Your task to perform on an android device: View the shopping cart on ebay. Search for "logitech g pro" on ebay, select the first entry, add it to the cart, then select checkout. Image 0: 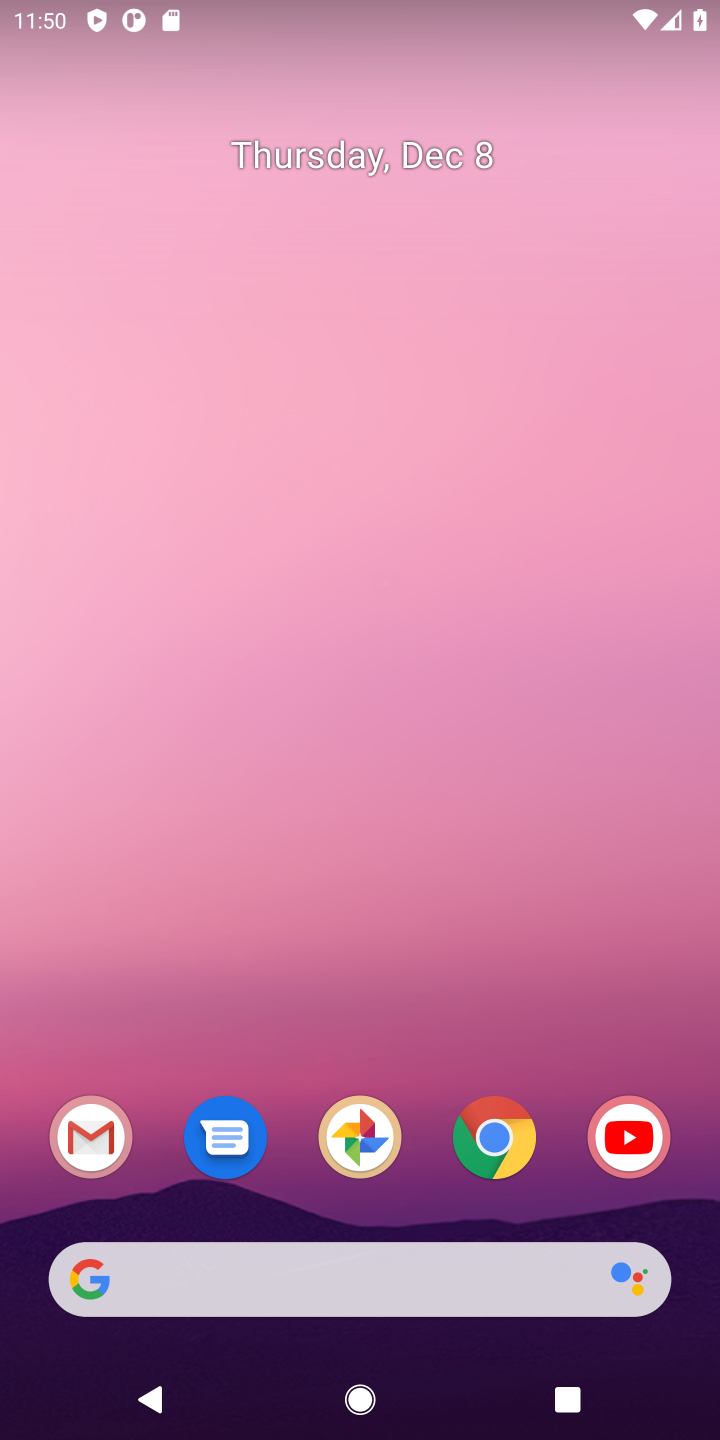
Step 0: click (491, 1142)
Your task to perform on an android device: View the shopping cart on ebay. Search for "logitech g pro" on ebay, select the first entry, add it to the cart, then select checkout. Image 1: 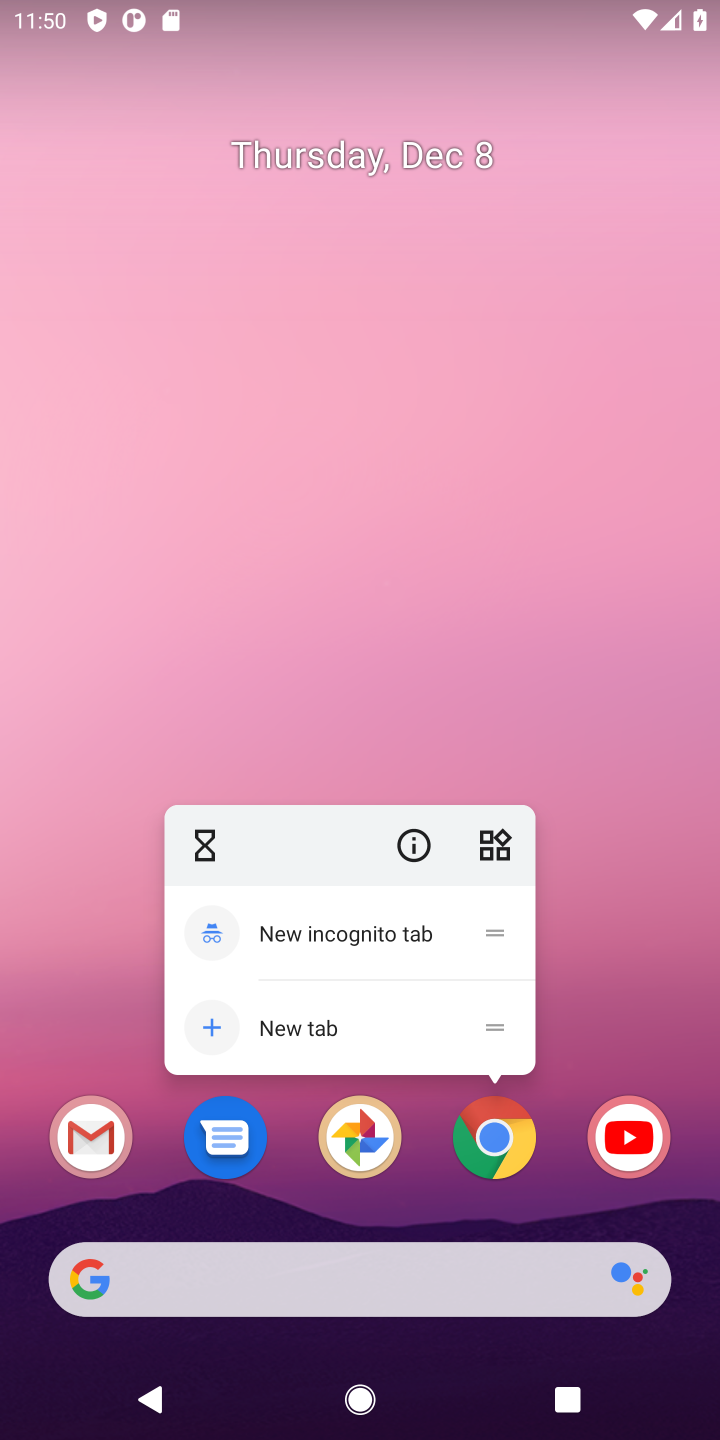
Step 1: click (502, 1137)
Your task to perform on an android device: View the shopping cart on ebay. Search for "logitech g pro" on ebay, select the first entry, add it to the cart, then select checkout. Image 2: 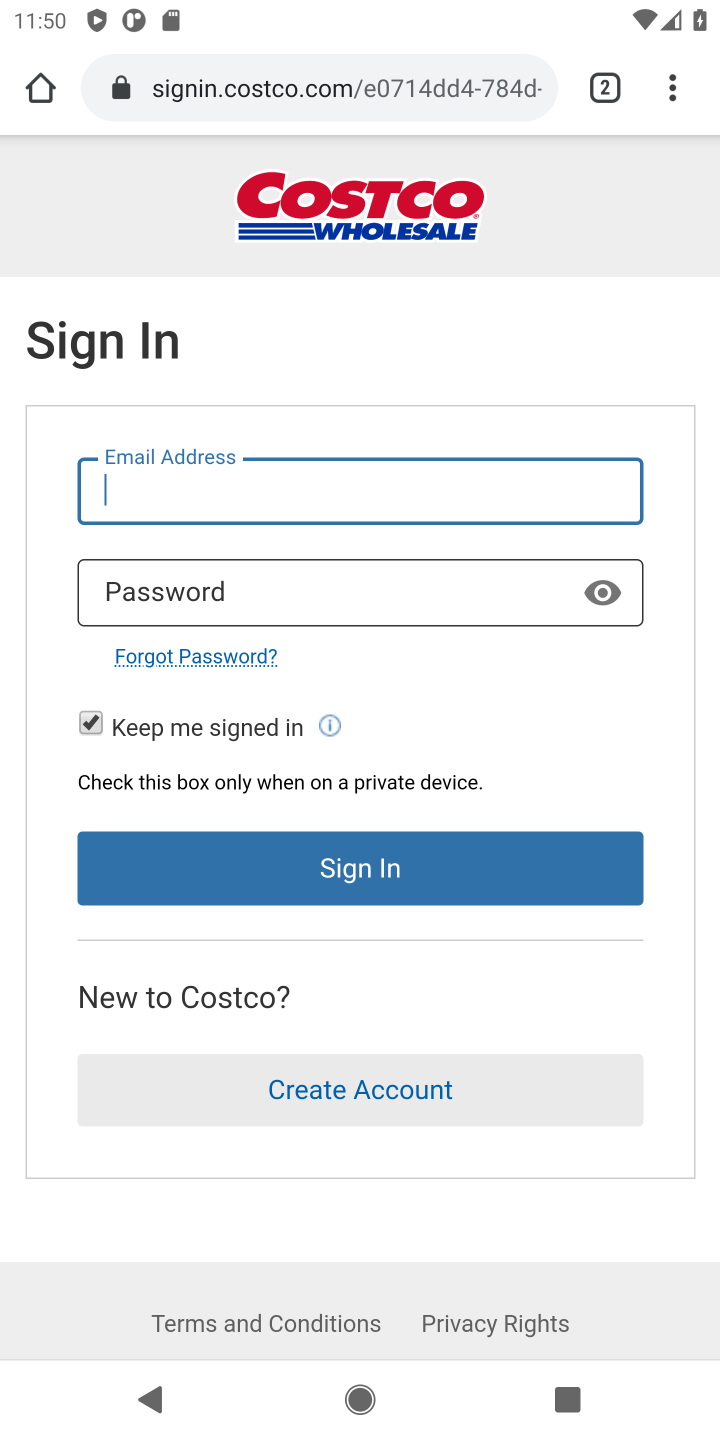
Step 2: click (368, 87)
Your task to perform on an android device: View the shopping cart on ebay. Search for "logitech g pro" on ebay, select the first entry, add it to the cart, then select checkout. Image 3: 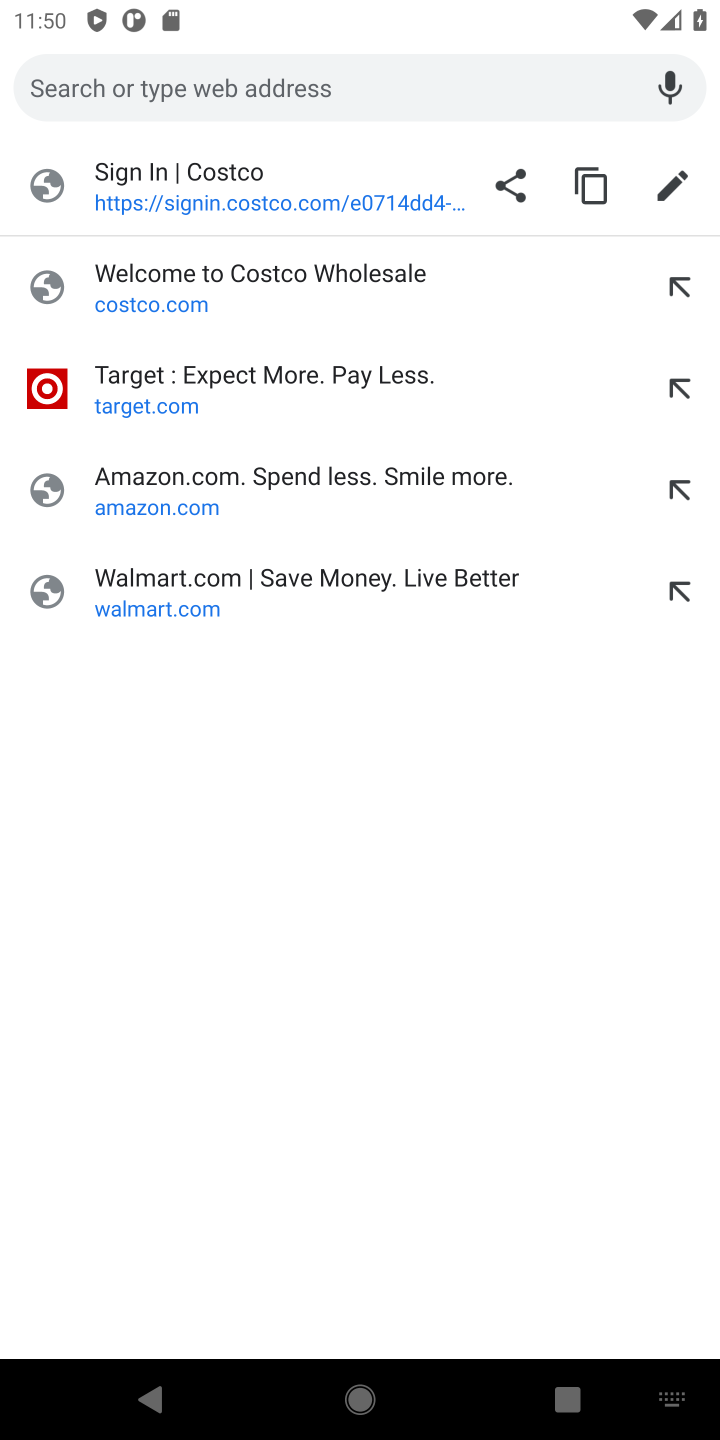
Step 3: type "EBAY"
Your task to perform on an android device: View the shopping cart on ebay. Search for "logitech g pro" on ebay, select the first entry, add it to the cart, then select checkout. Image 4: 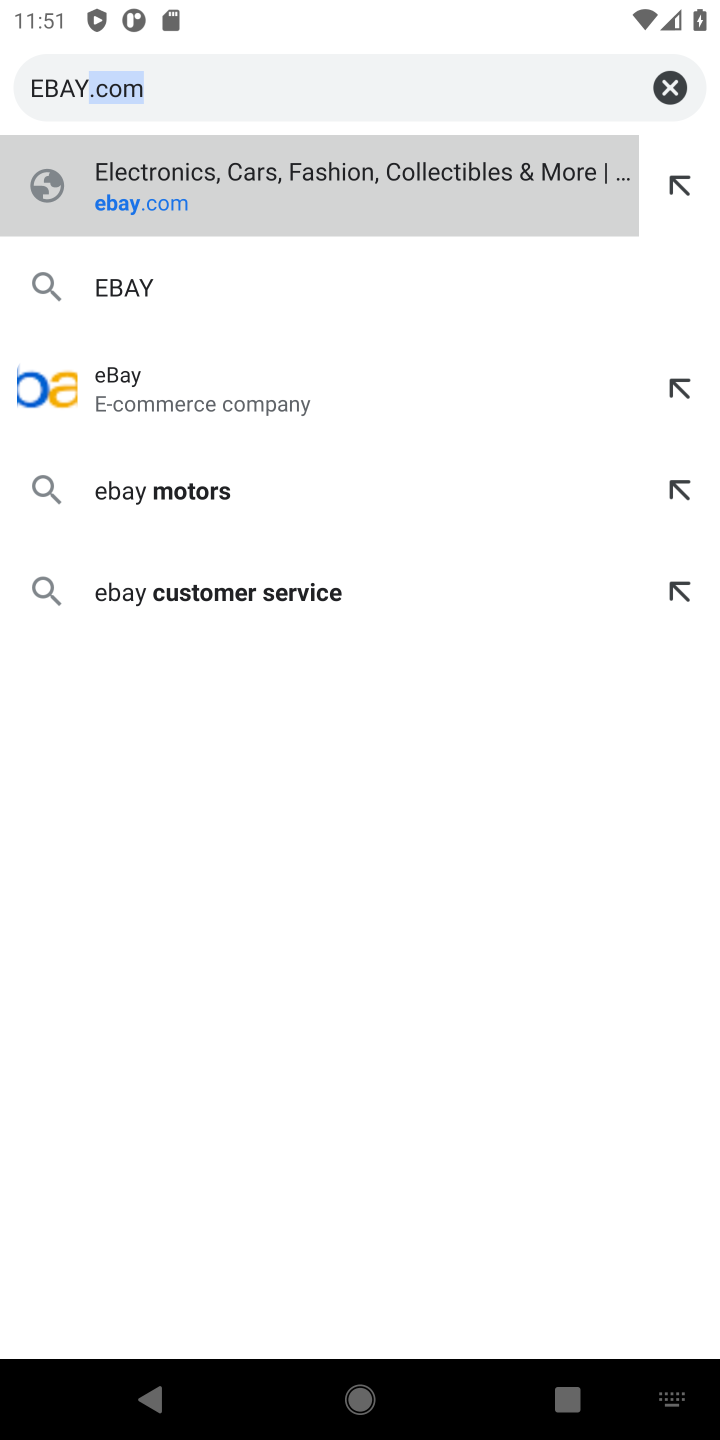
Step 4: click (173, 208)
Your task to perform on an android device: View the shopping cart on ebay. Search for "logitech g pro" on ebay, select the first entry, add it to the cart, then select checkout. Image 5: 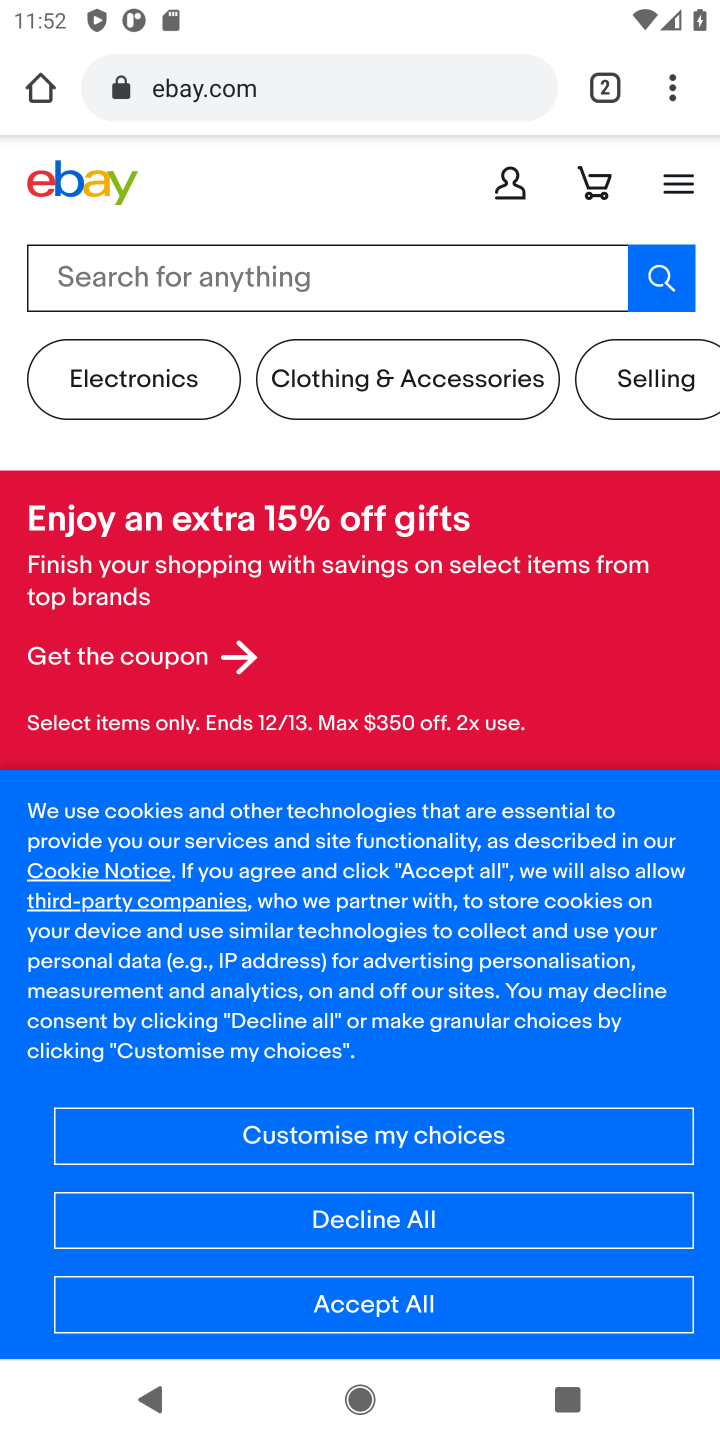
Step 5: click (452, 1297)
Your task to perform on an android device: View the shopping cart on ebay. Search for "logitech g pro" on ebay, select the first entry, add it to the cart, then select checkout. Image 6: 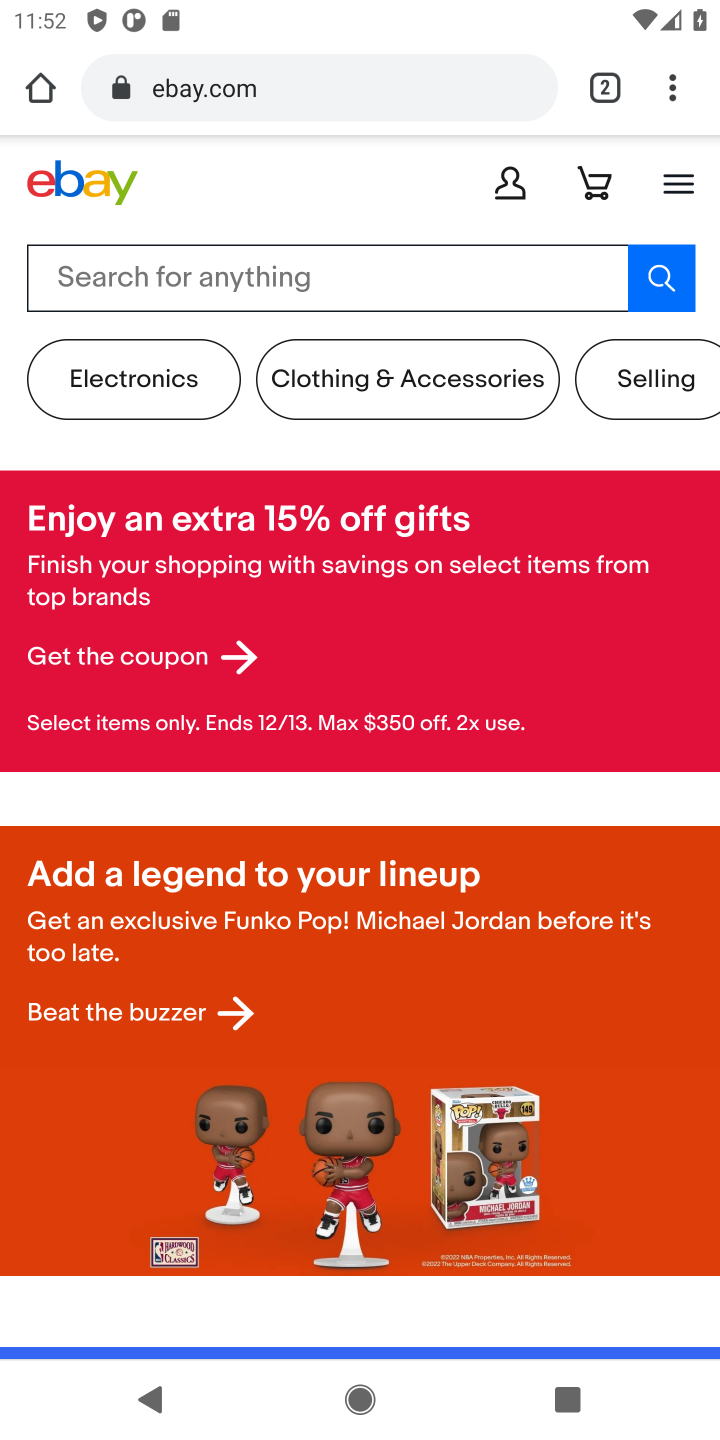
Step 6: click (341, 273)
Your task to perform on an android device: View the shopping cart on ebay. Search for "logitech g pro" on ebay, select the first entry, add it to the cart, then select checkout. Image 7: 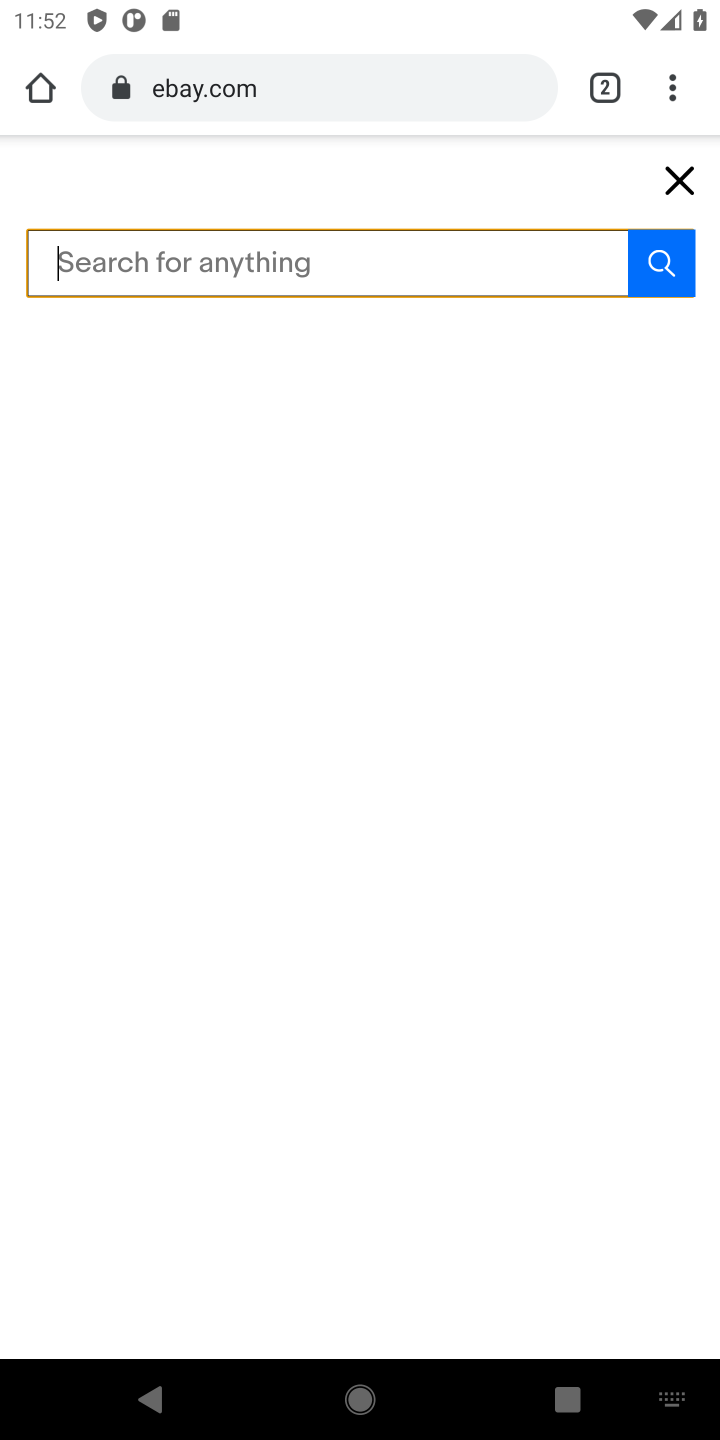
Step 7: type "LOGITECH G PRO"
Your task to perform on an android device: View the shopping cart on ebay. Search for "logitech g pro" on ebay, select the first entry, add it to the cart, then select checkout. Image 8: 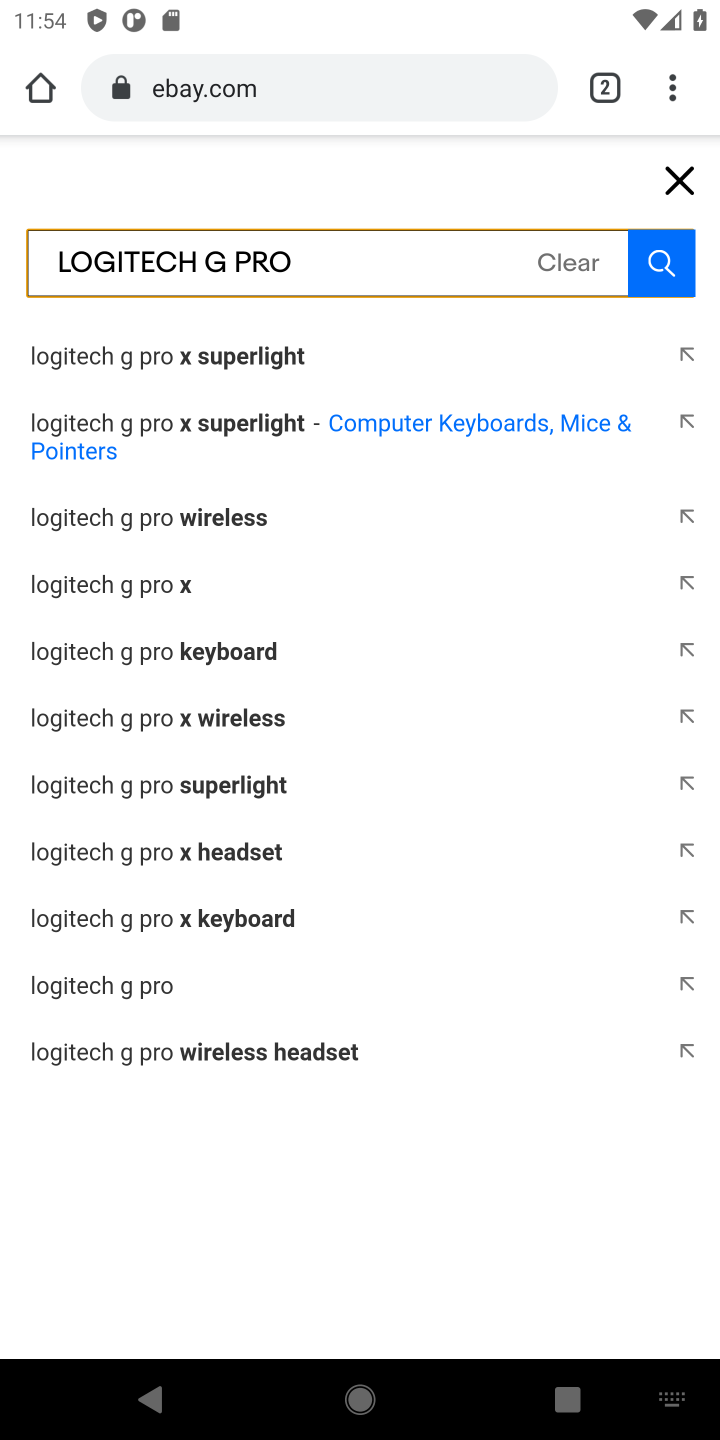
Step 8: click (250, 357)
Your task to perform on an android device: View the shopping cart on ebay. Search for "logitech g pro" on ebay, select the first entry, add it to the cart, then select checkout. Image 9: 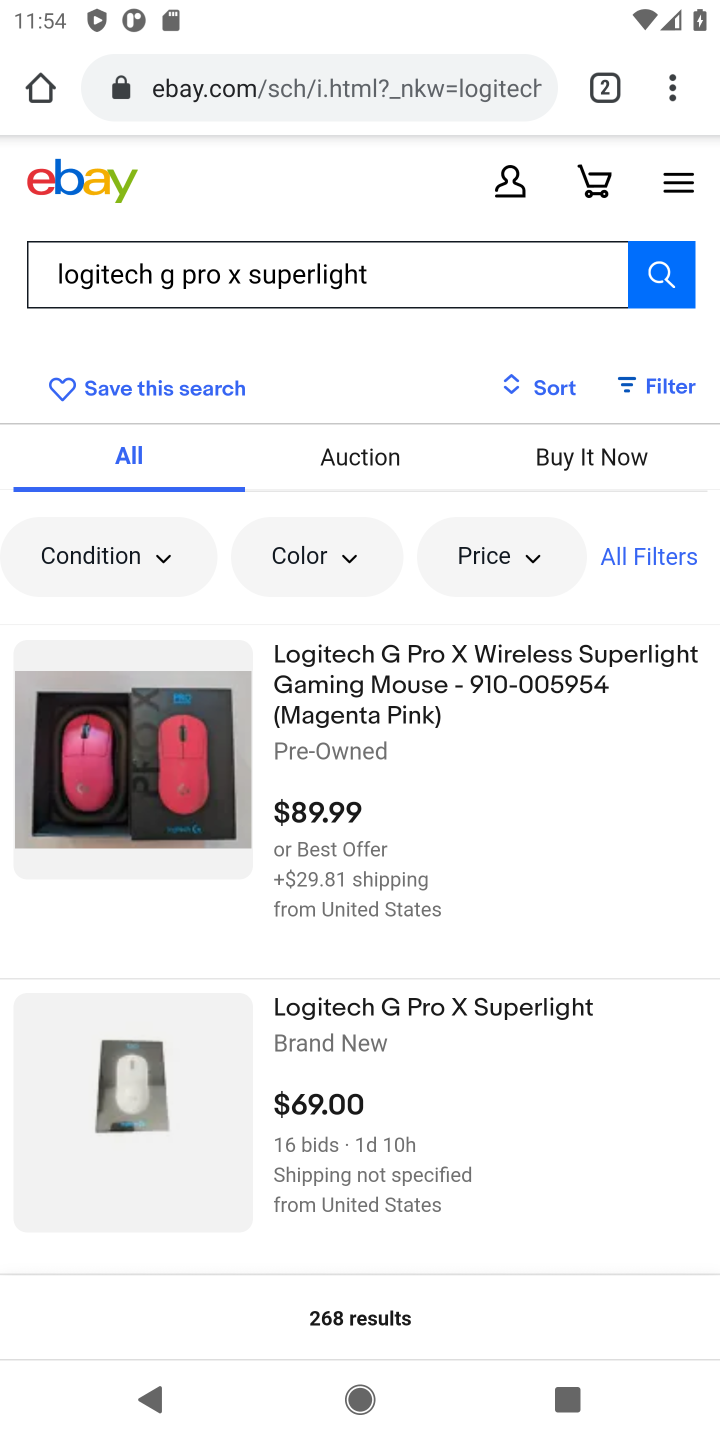
Step 9: click (521, 760)
Your task to perform on an android device: View the shopping cart on ebay. Search for "logitech g pro" on ebay, select the first entry, add it to the cart, then select checkout. Image 10: 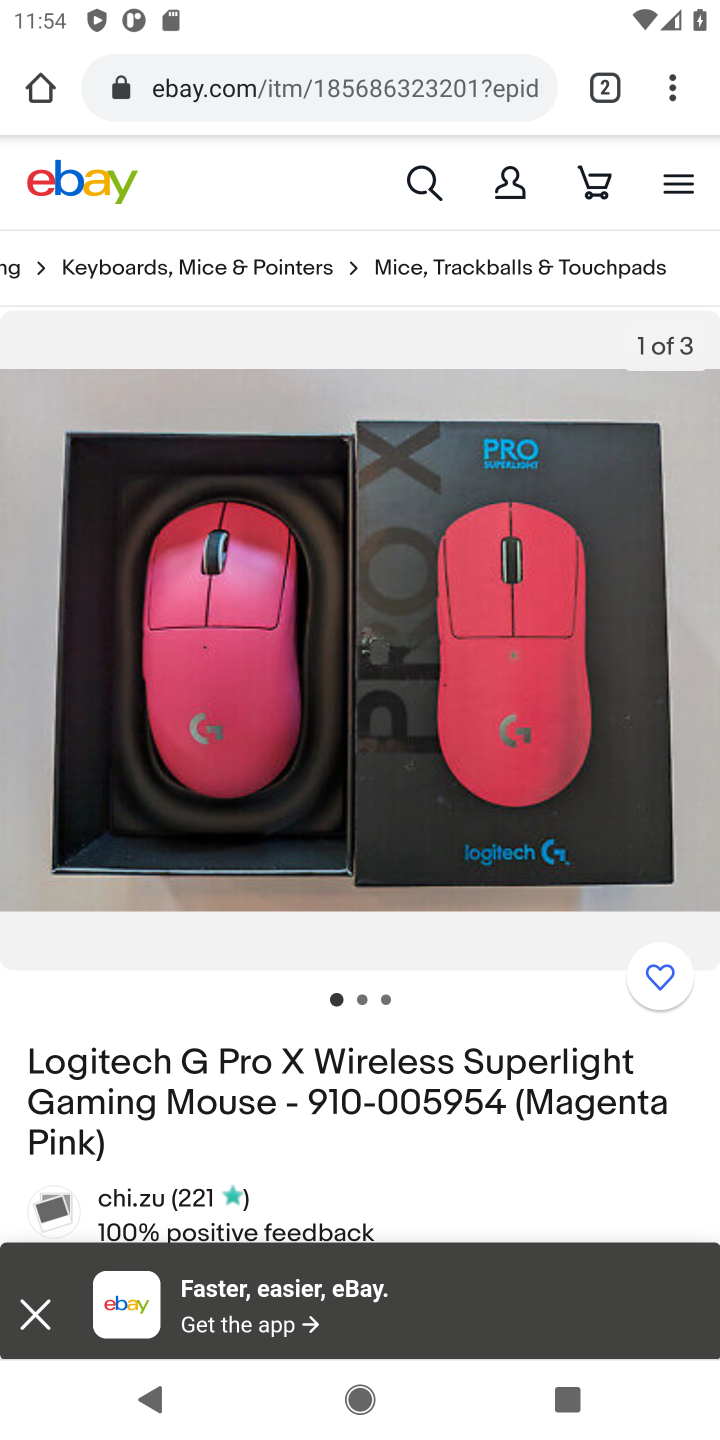
Step 10: drag from (444, 1152) to (430, 157)
Your task to perform on an android device: View the shopping cart on ebay. Search for "logitech g pro" on ebay, select the first entry, add it to the cart, then select checkout. Image 11: 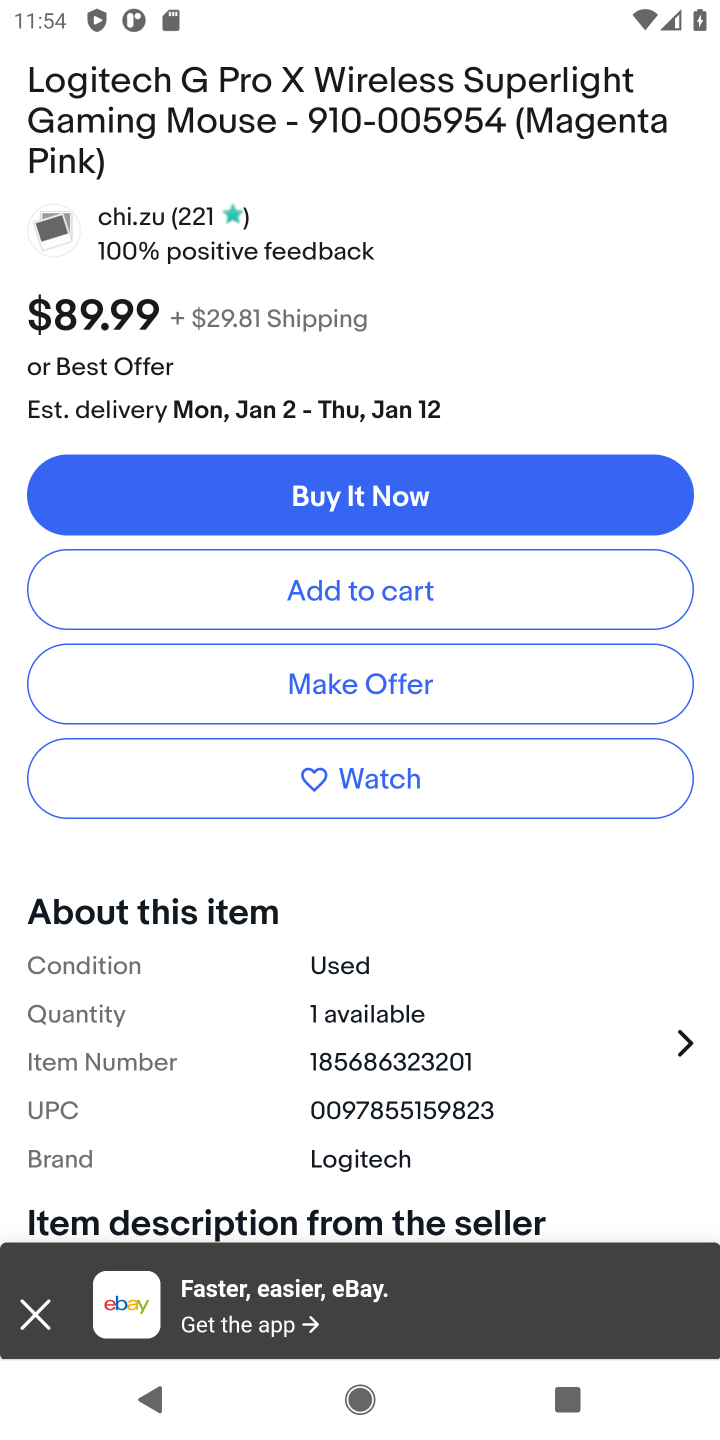
Step 11: click (420, 577)
Your task to perform on an android device: View the shopping cart on ebay. Search for "logitech g pro" on ebay, select the first entry, add it to the cart, then select checkout. Image 12: 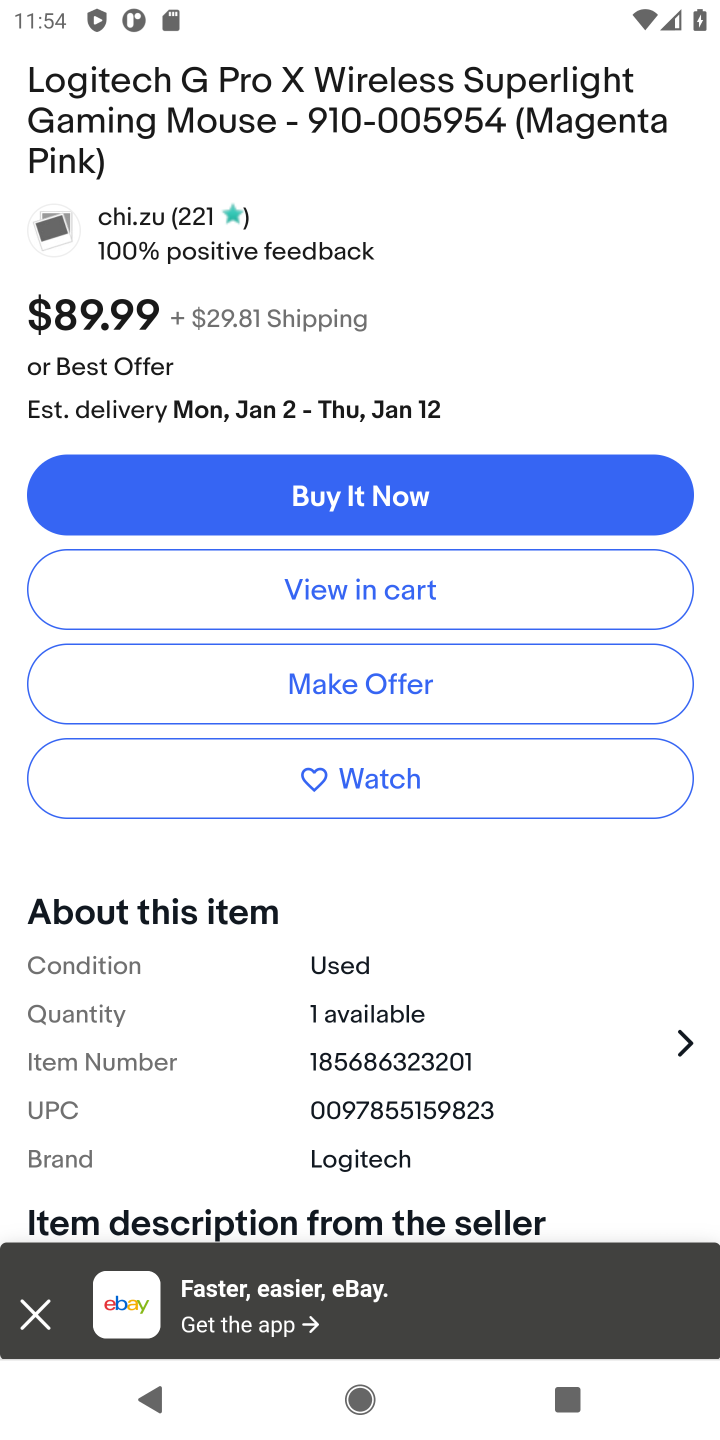
Step 12: click (420, 577)
Your task to perform on an android device: View the shopping cart on ebay. Search for "logitech g pro" on ebay, select the first entry, add it to the cart, then select checkout. Image 13: 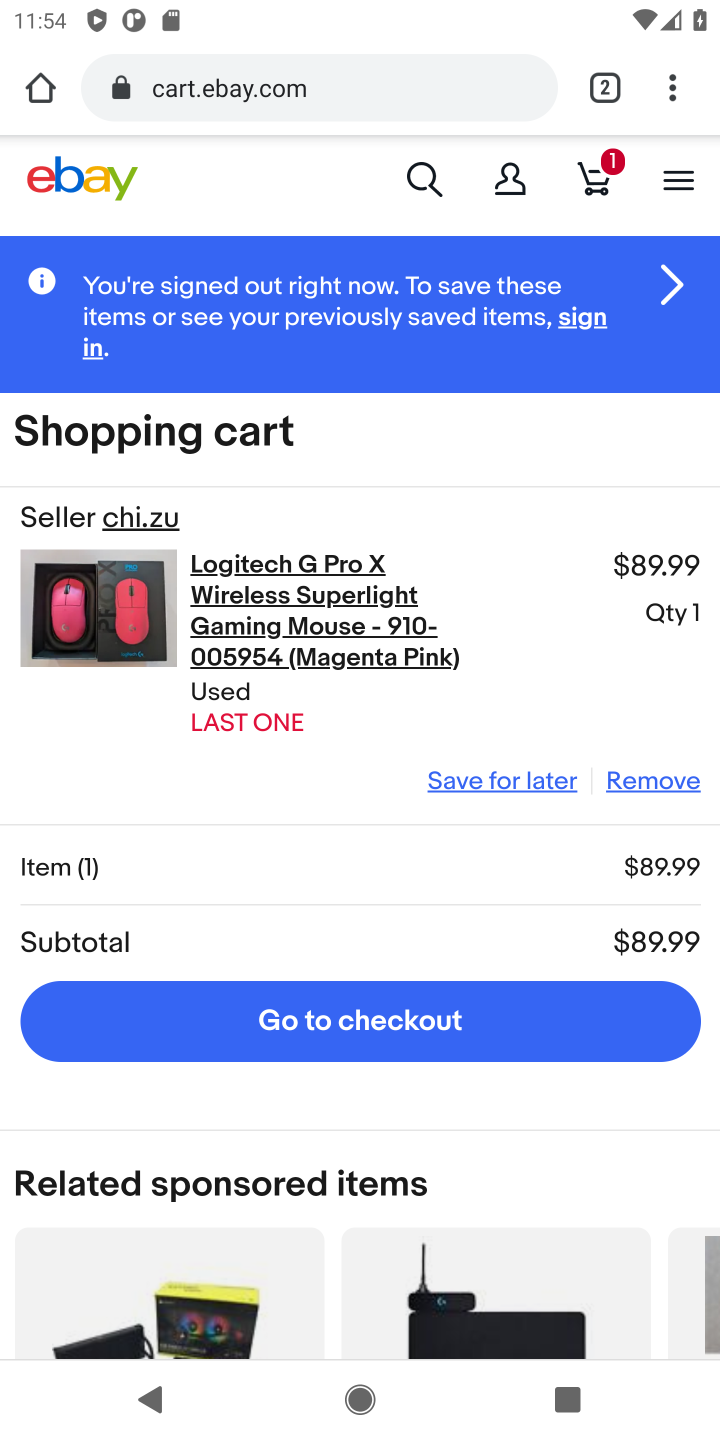
Step 13: click (395, 1023)
Your task to perform on an android device: View the shopping cart on ebay. Search for "logitech g pro" on ebay, select the first entry, add it to the cart, then select checkout. Image 14: 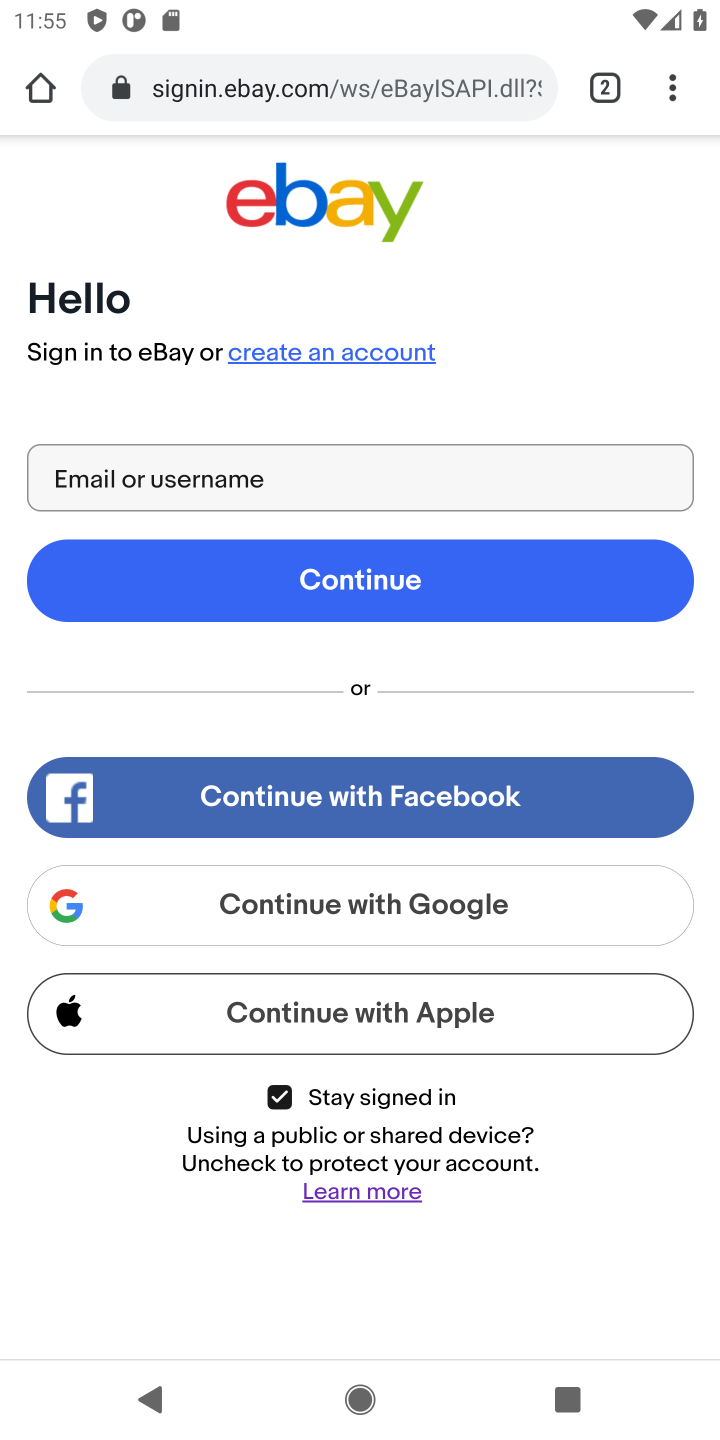
Step 14: task complete